Your task to perform on an android device: check the backup settings in the google photos Image 0: 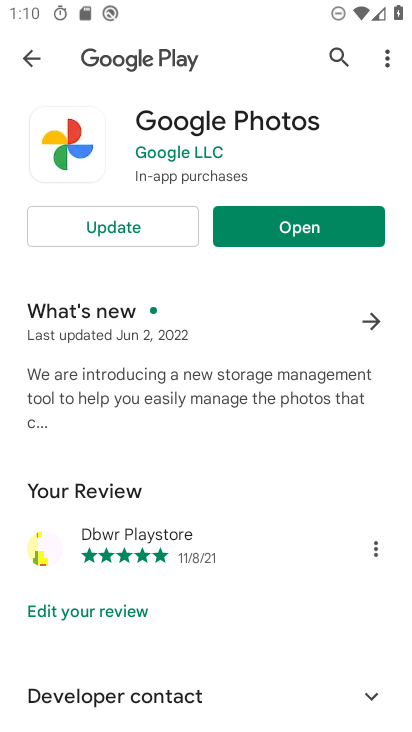
Step 0: press home button
Your task to perform on an android device: check the backup settings in the google photos Image 1: 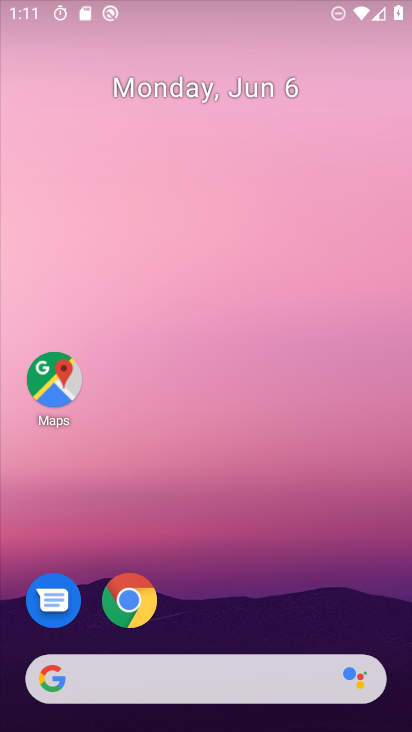
Step 1: drag from (245, 600) to (258, 138)
Your task to perform on an android device: check the backup settings in the google photos Image 2: 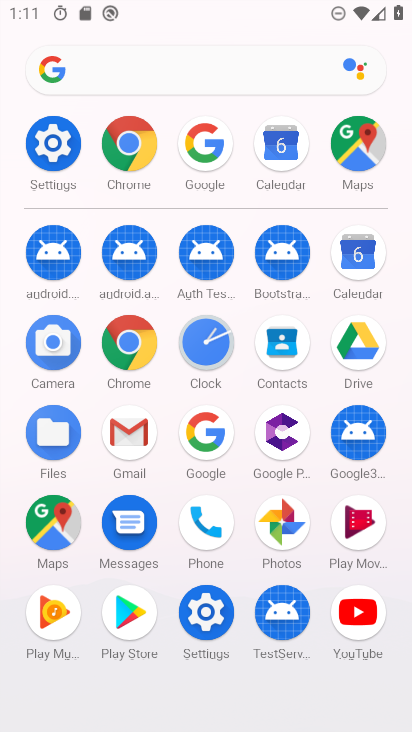
Step 2: click (275, 533)
Your task to perform on an android device: check the backup settings in the google photos Image 3: 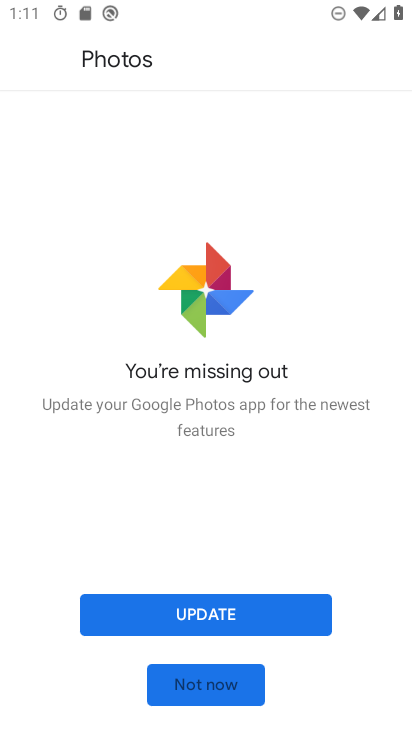
Step 3: click (288, 410)
Your task to perform on an android device: check the backup settings in the google photos Image 4: 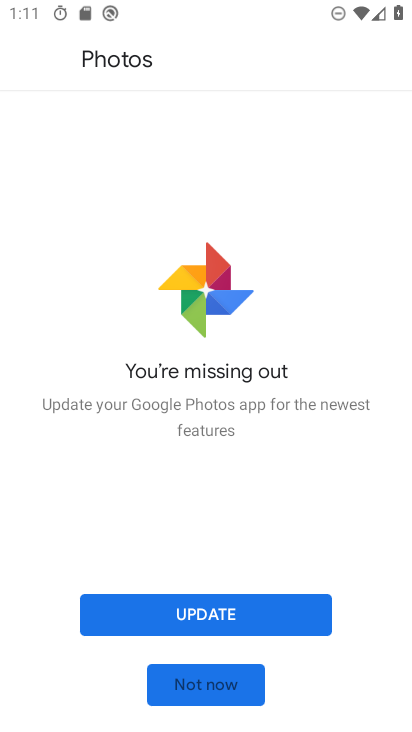
Step 4: click (219, 673)
Your task to perform on an android device: check the backup settings in the google photos Image 5: 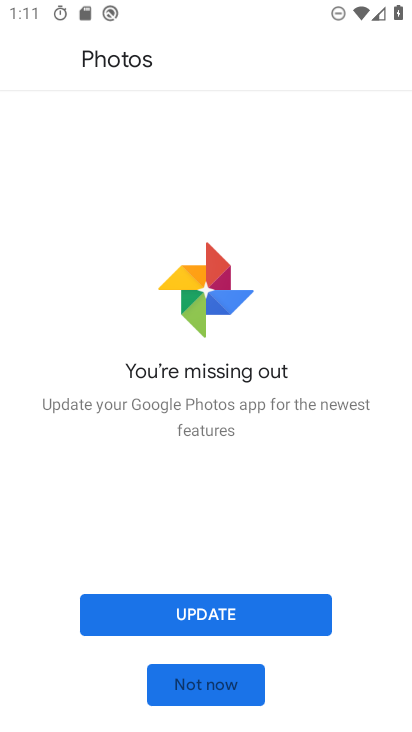
Step 5: click (216, 687)
Your task to perform on an android device: check the backup settings in the google photos Image 6: 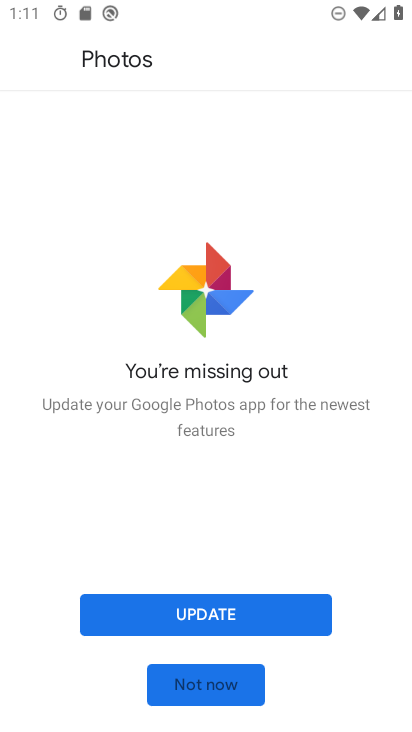
Step 6: click (198, 686)
Your task to perform on an android device: check the backup settings in the google photos Image 7: 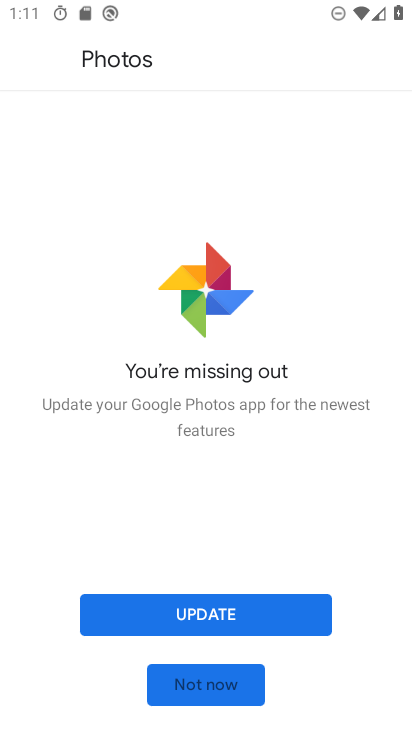
Step 7: click (198, 686)
Your task to perform on an android device: check the backup settings in the google photos Image 8: 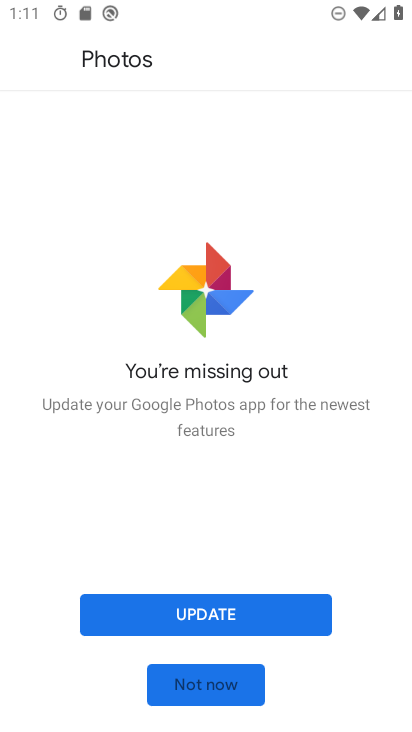
Step 8: click (196, 688)
Your task to perform on an android device: check the backup settings in the google photos Image 9: 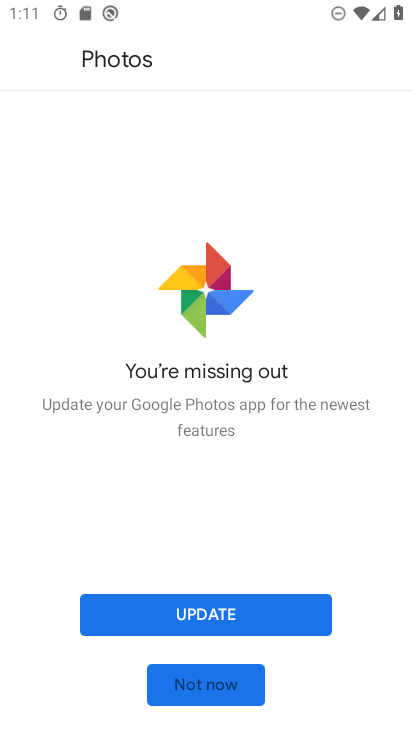
Step 9: click (196, 688)
Your task to perform on an android device: check the backup settings in the google photos Image 10: 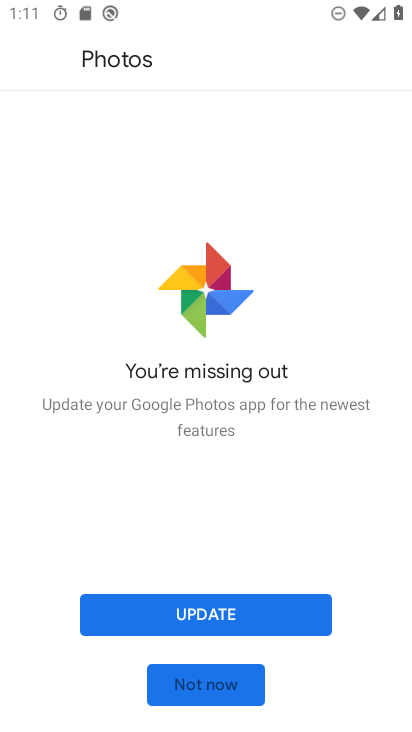
Step 10: click (196, 688)
Your task to perform on an android device: check the backup settings in the google photos Image 11: 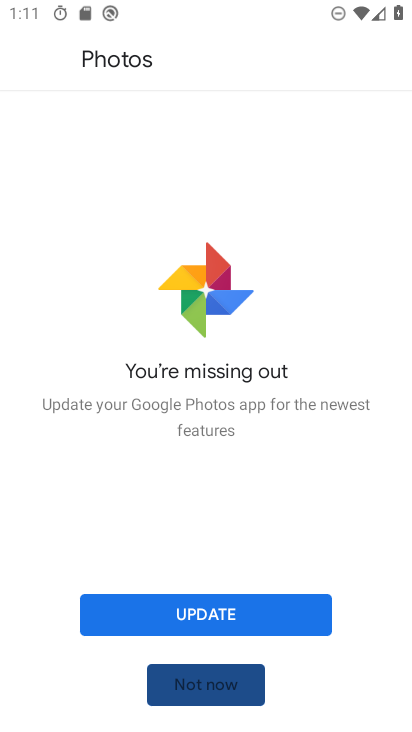
Step 11: click (196, 688)
Your task to perform on an android device: check the backup settings in the google photos Image 12: 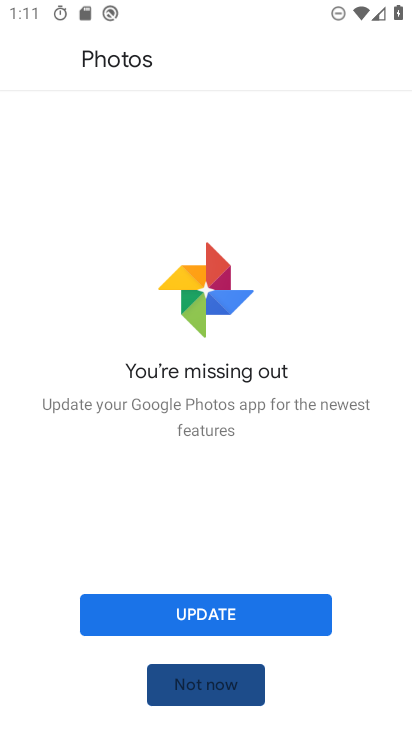
Step 12: click (196, 688)
Your task to perform on an android device: check the backup settings in the google photos Image 13: 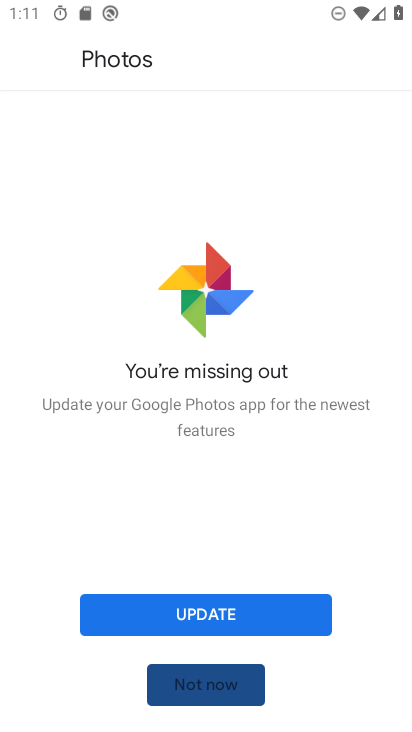
Step 13: click (196, 688)
Your task to perform on an android device: check the backup settings in the google photos Image 14: 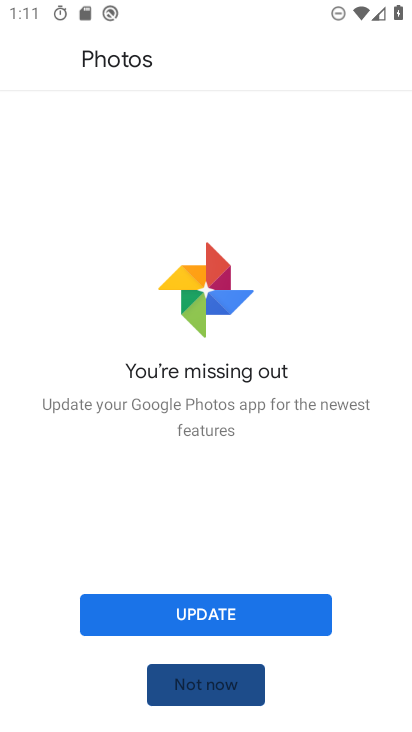
Step 14: click (242, 694)
Your task to perform on an android device: check the backup settings in the google photos Image 15: 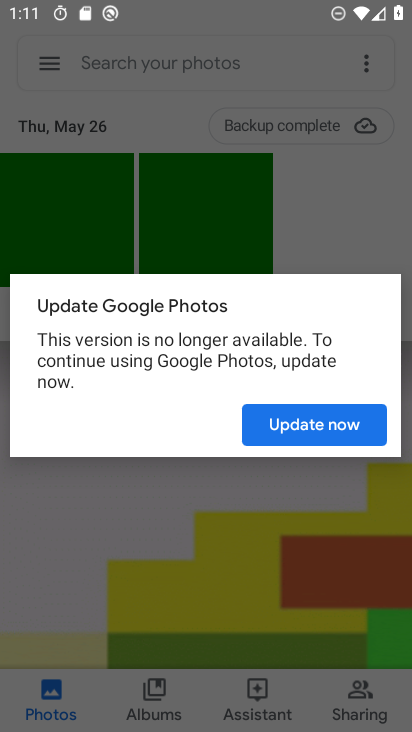
Step 15: click (294, 429)
Your task to perform on an android device: check the backup settings in the google photos Image 16: 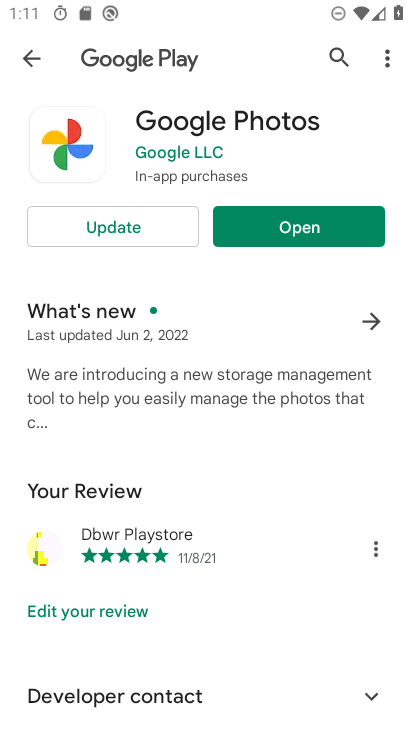
Step 16: click (293, 236)
Your task to perform on an android device: check the backup settings in the google photos Image 17: 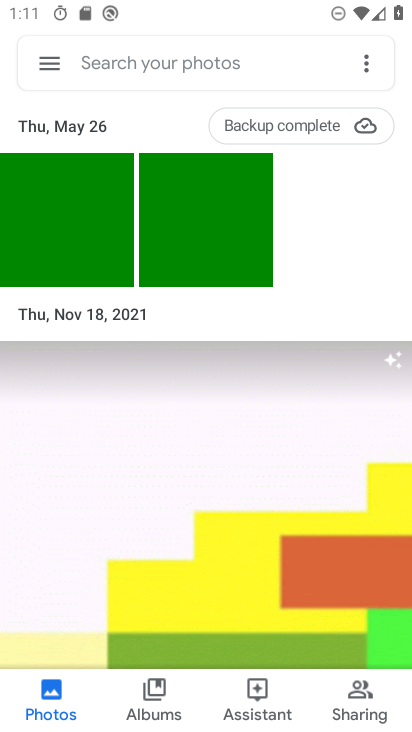
Step 17: click (41, 61)
Your task to perform on an android device: check the backup settings in the google photos Image 18: 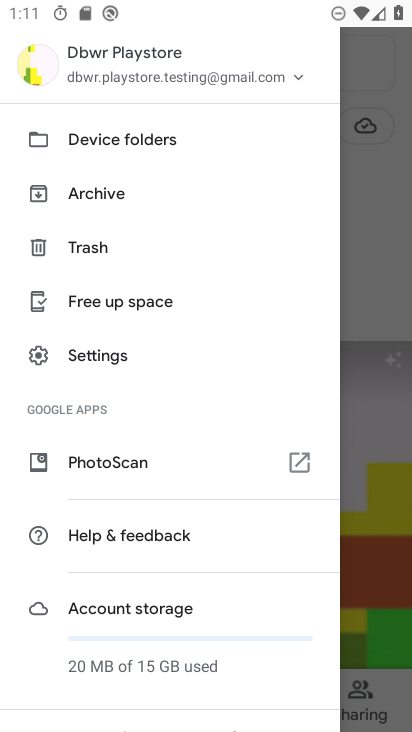
Step 18: click (89, 361)
Your task to perform on an android device: check the backup settings in the google photos Image 19: 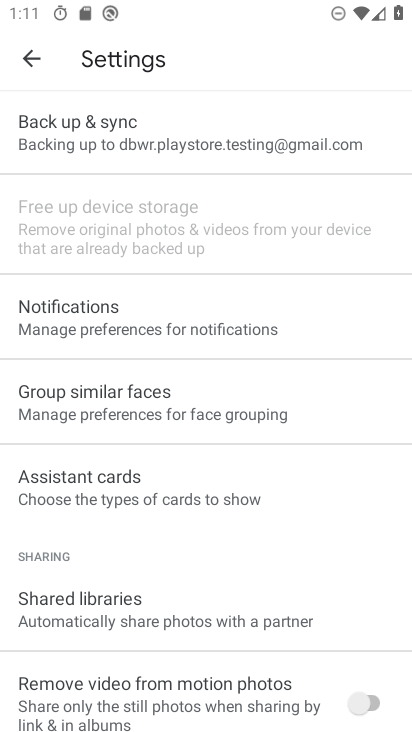
Step 19: click (233, 147)
Your task to perform on an android device: check the backup settings in the google photos Image 20: 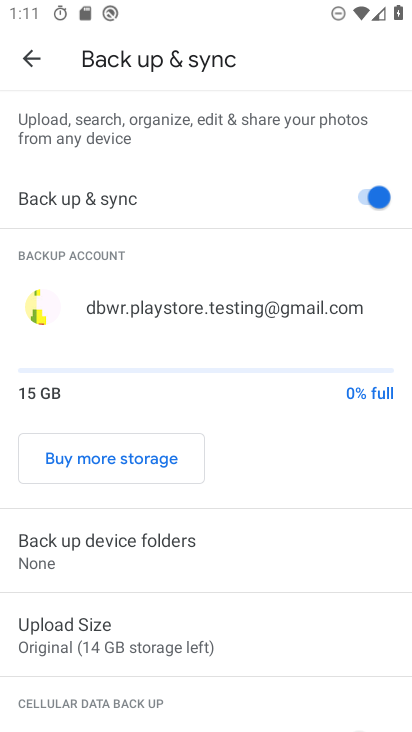
Step 20: task complete